Your task to perform on an android device: Check the weather Image 0: 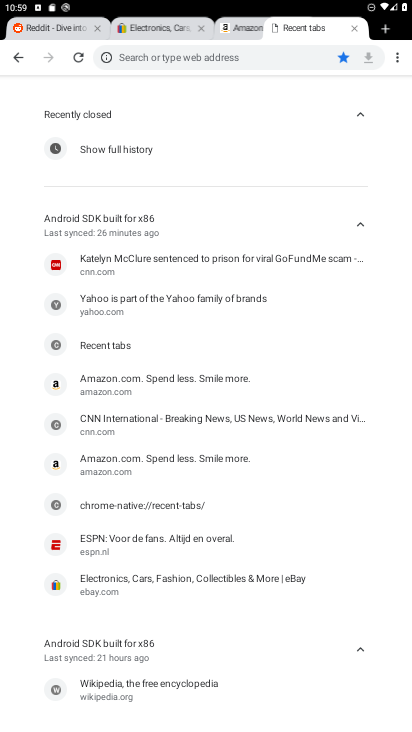
Step 0: press home button
Your task to perform on an android device: Check the weather Image 1: 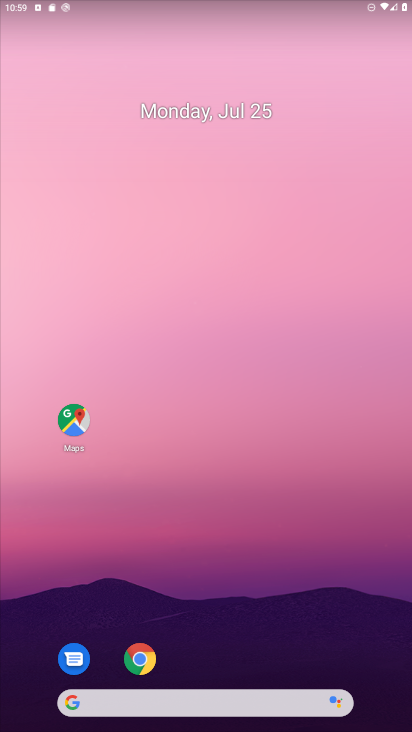
Step 1: drag from (205, 581) to (218, 216)
Your task to perform on an android device: Check the weather Image 2: 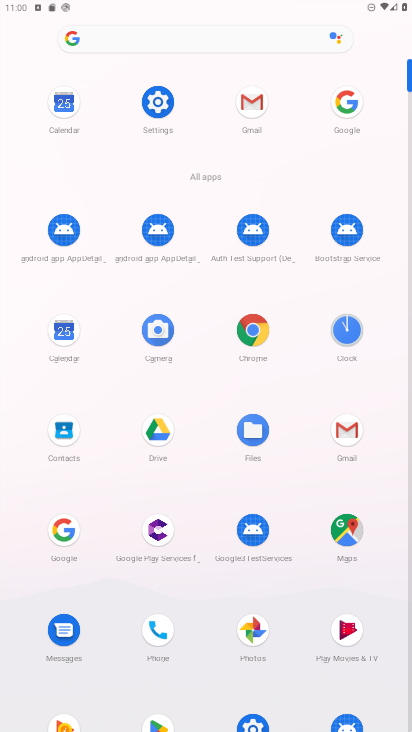
Step 2: click (60, 536)
Your task to perform on an android device: Check the weather Image 3: 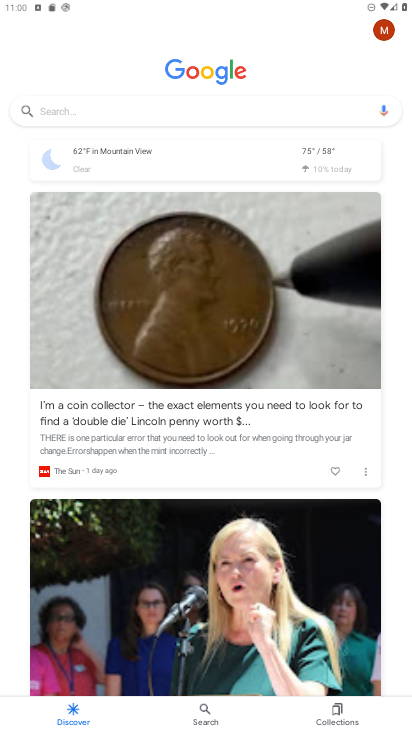
Step 3: click (130, 141)
Your task to perform on an android device: Check the weather Image 4: 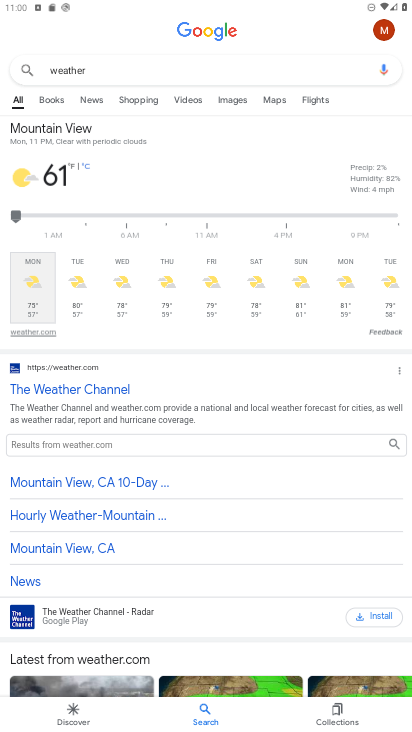
Step 4: task complete